Your task to perform on an android device: turn off translation in the chrome app Image 0: 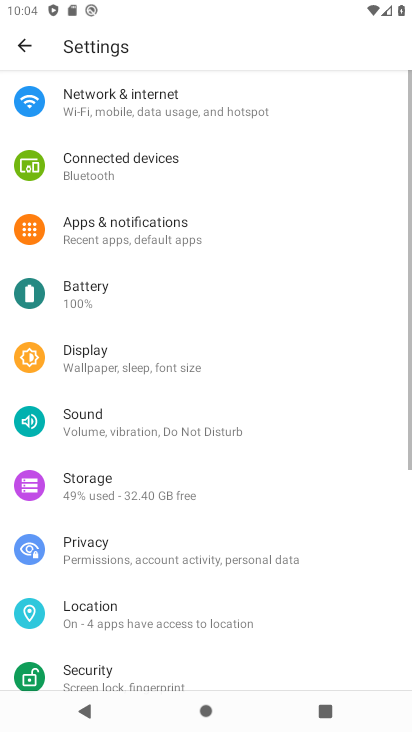
Step 0: press home button
Your task to perform on an android device: turn off translation in the chrome app Image 1: 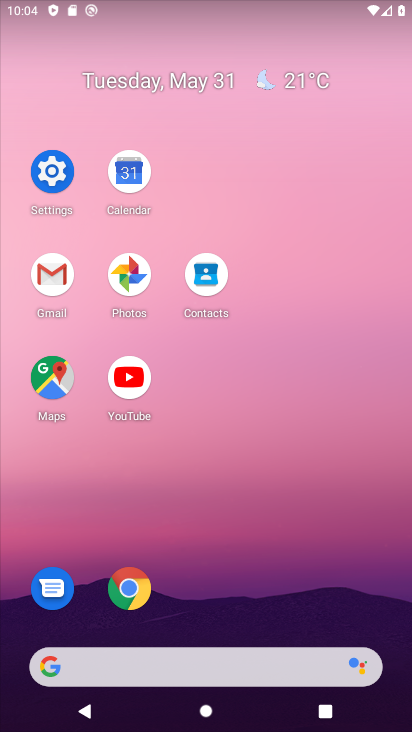
Step 1: click (117, 581)
Your task to perform on an android device: turn off translation in the chrome app Image 2: 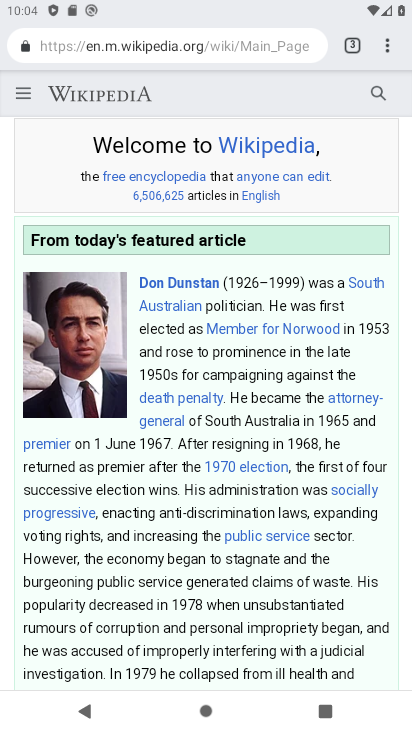
Step 2: click (386, 51)
Your task to perform on an android device: turn off translation in the chrome app Image 3: 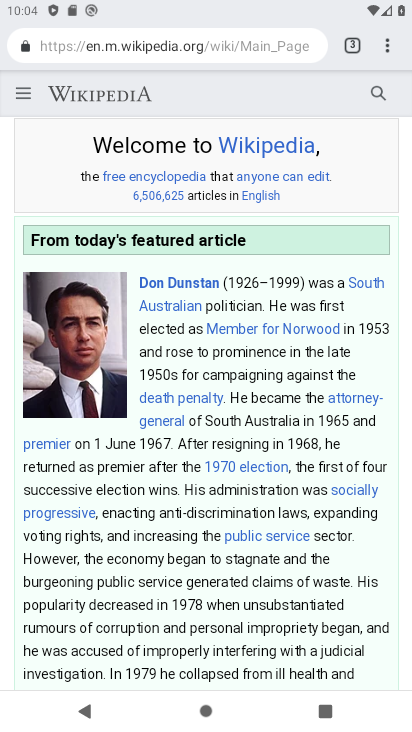
Step 3: click (397, 43)
Your task to perform on an android device: turn off translation in the chrome app Image 4: 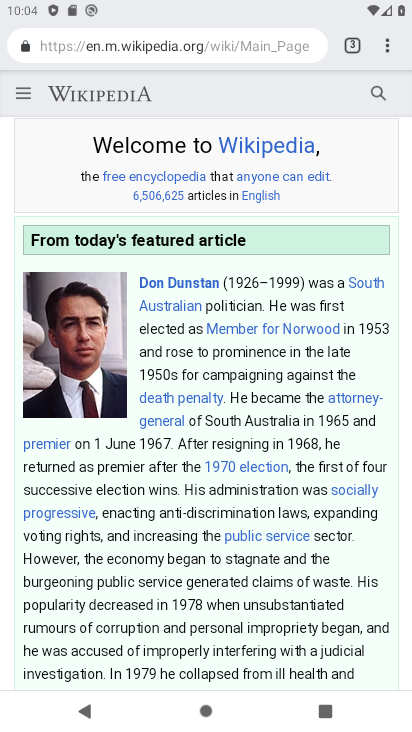
Step 4: click (391, 41)
Your task to perform on an android device: turn off translation in the chrome app Image 5: 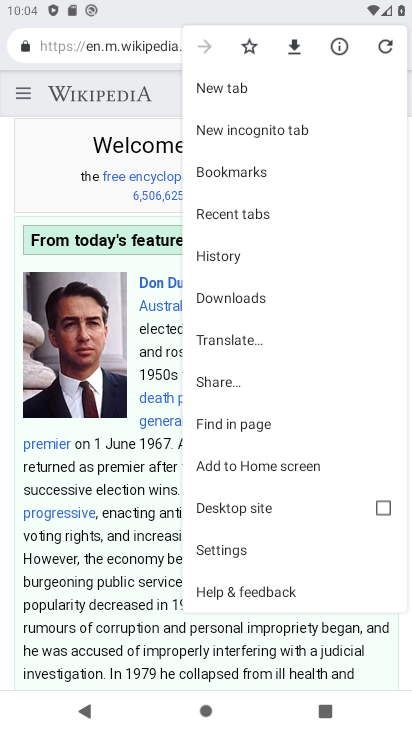
Step 5: click (284, 541)
Your task to perform on an android device: turn off translation in the chrome app Image 6: 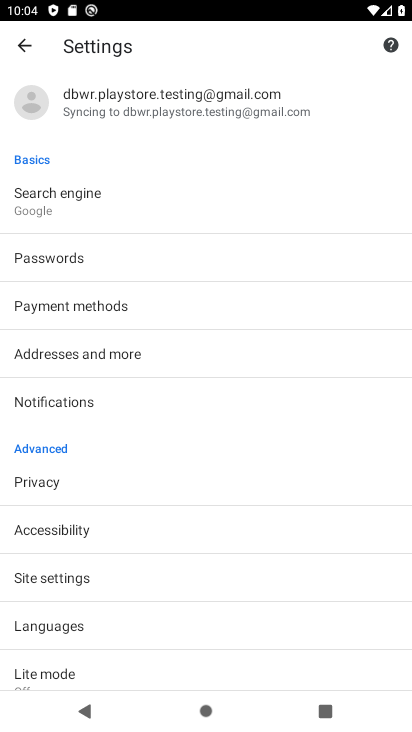
Step 6: drag from (204, 584) to (205, 220)
Your task to perform on an android device: turn off translation in the chrome app Image 7: 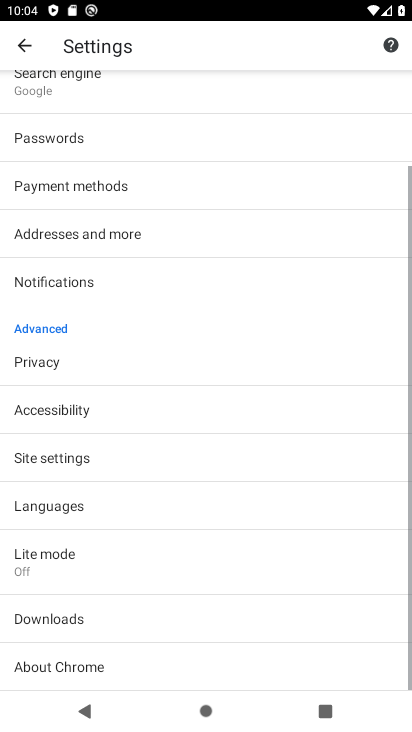
Step 7: click (158, 518)
Your task to perform on an android device: turn off translation in the chrome app Image 8: 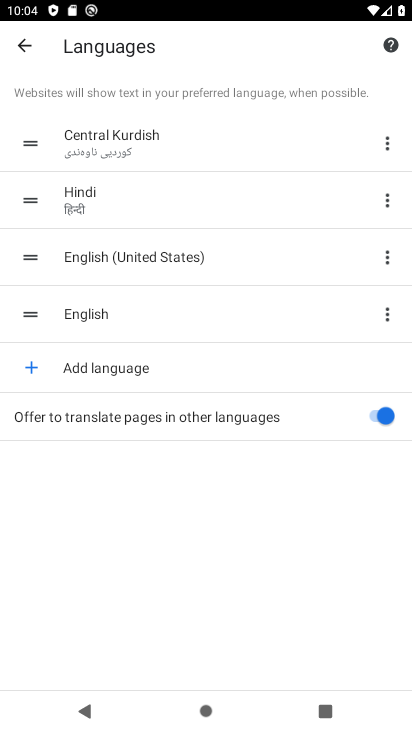
Step 8: click (376, 415)
Your task to perform on an android device: turn off translation in the chrome app Image 9: 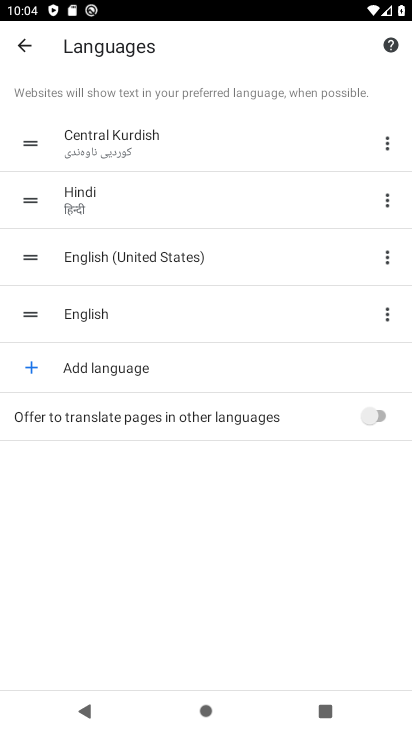
Step 9: task complete